Your task to perform on an android device: Open settings Image 0: 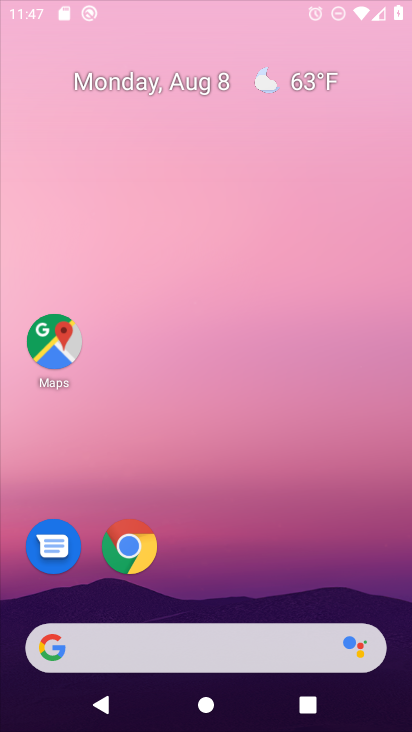
Step 0: press home button
Your task to perform on an android device: Open settings Image 1: 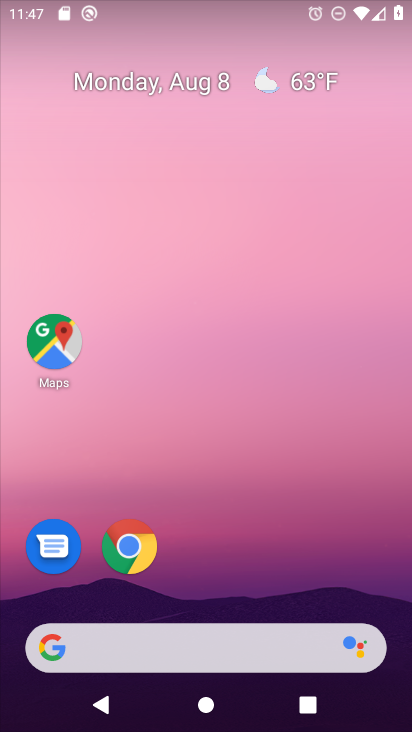
Step 1: drag from (220, 599) to (210, 112)
Your task to perform on an android device: Open settings Image 2: 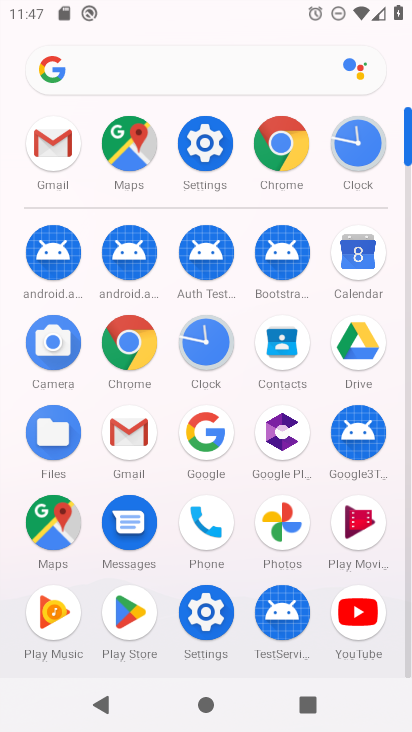
Step 2: click (206, 608)
Your task to perform on an android device: Open settings Image 3: 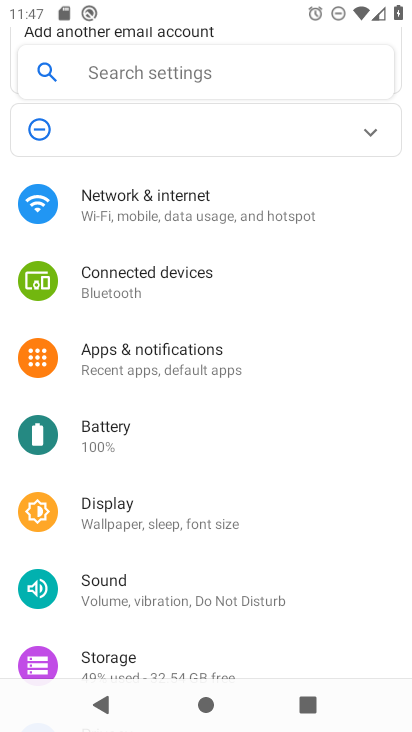
Step 3: task complete